Your task to perform on an android device: uninstall "Airtel Thanks" Image 0: 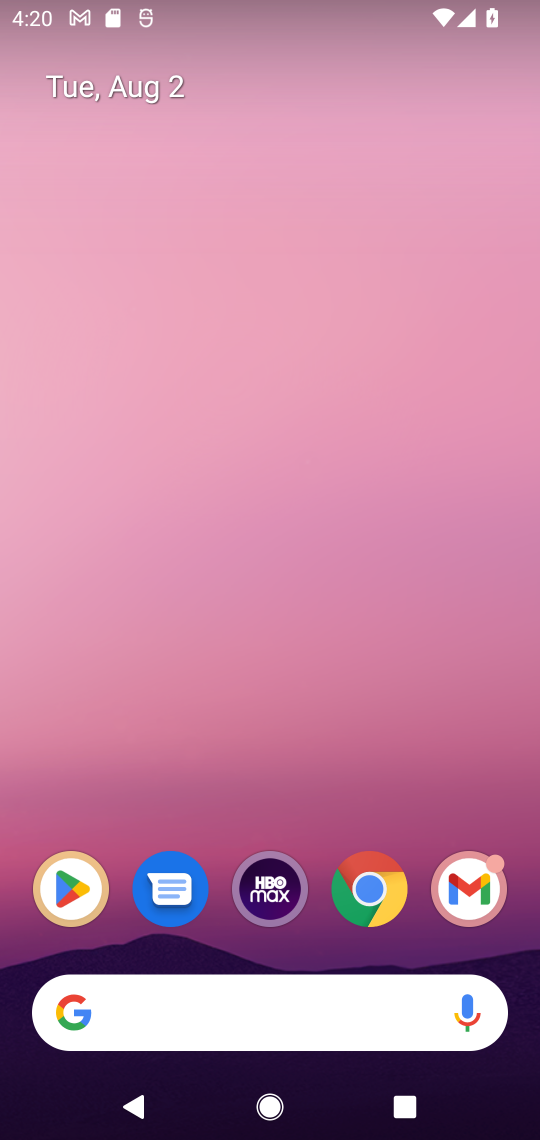
Step 0: drag from (431, 759) to (434, 97)
Your task to perform on an android device: uninstall "Airtel Thanks" Image 1: 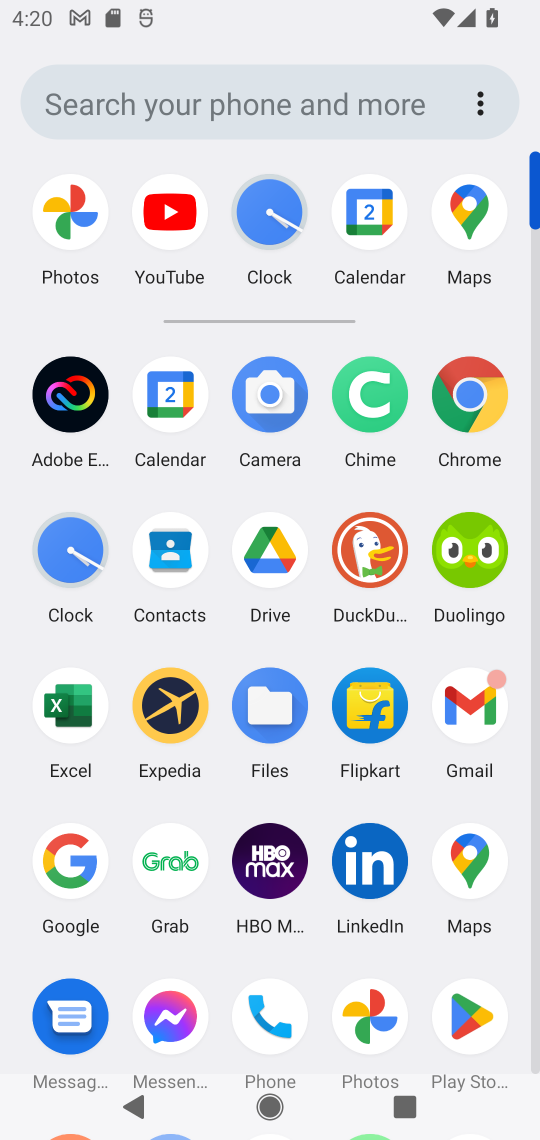
Step 1: click (474, 1028)
Your task to perform on an android device: uninstall "Airtel Thanks" Image 2: 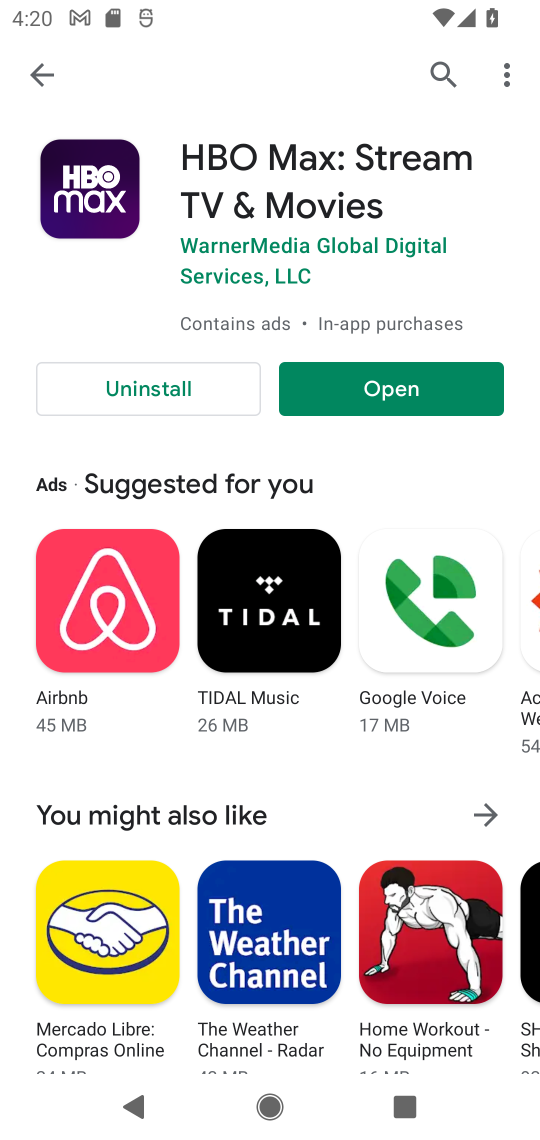
Step 2: click (438, 70)
Your task to perform on an android device: uninstall "Airtel Thanks" Image 3: 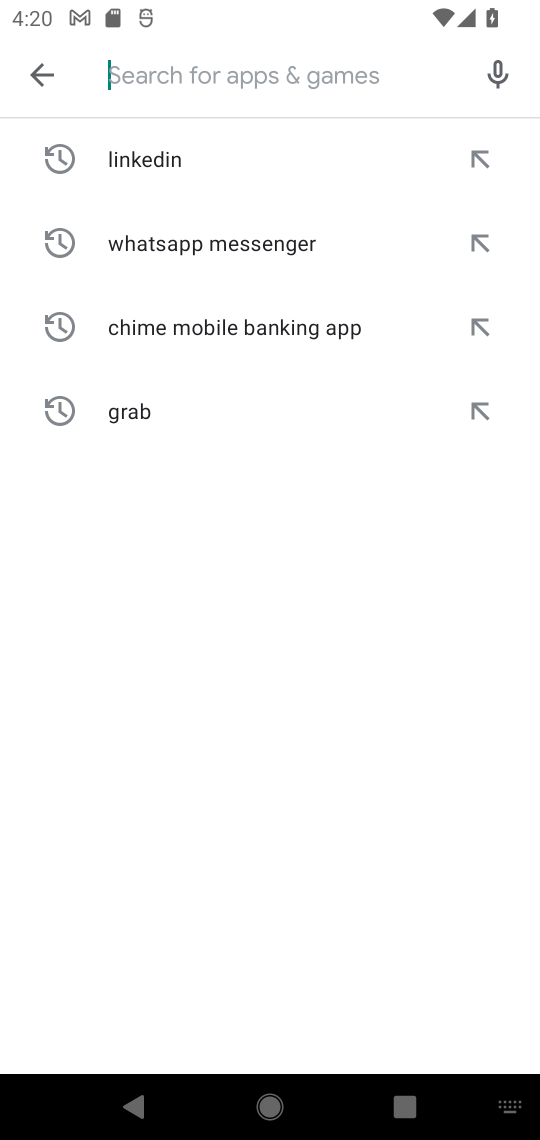
Step 3: click (351, 88)
Your task to perform on an android device: uninstall "Airtel Thanks" Image 4: 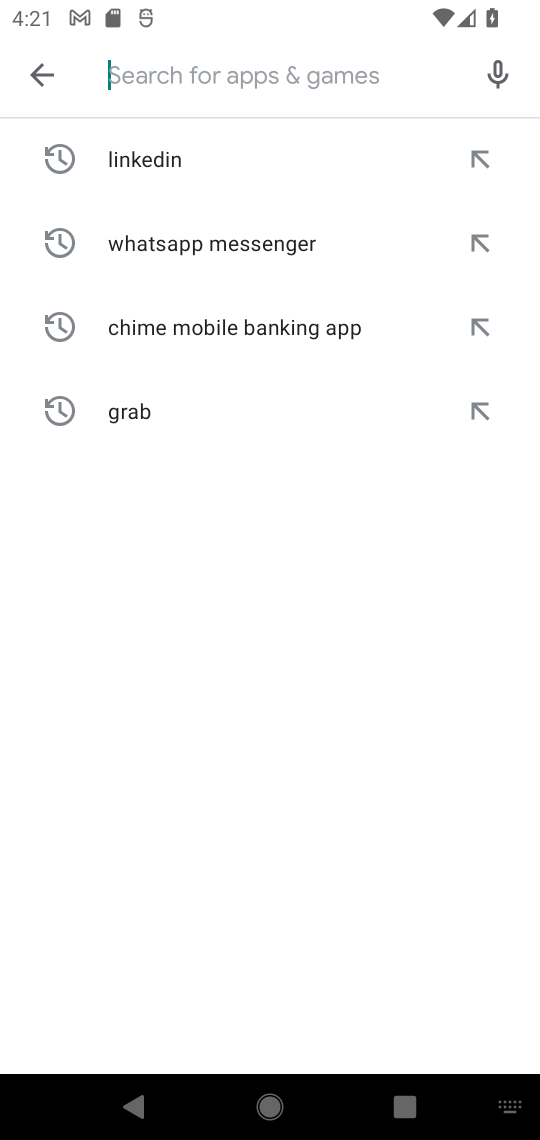
Step 4: type "airtel thanks"
Your task to perform on an android device: uninstall "Airtel Thanks" Image 5: 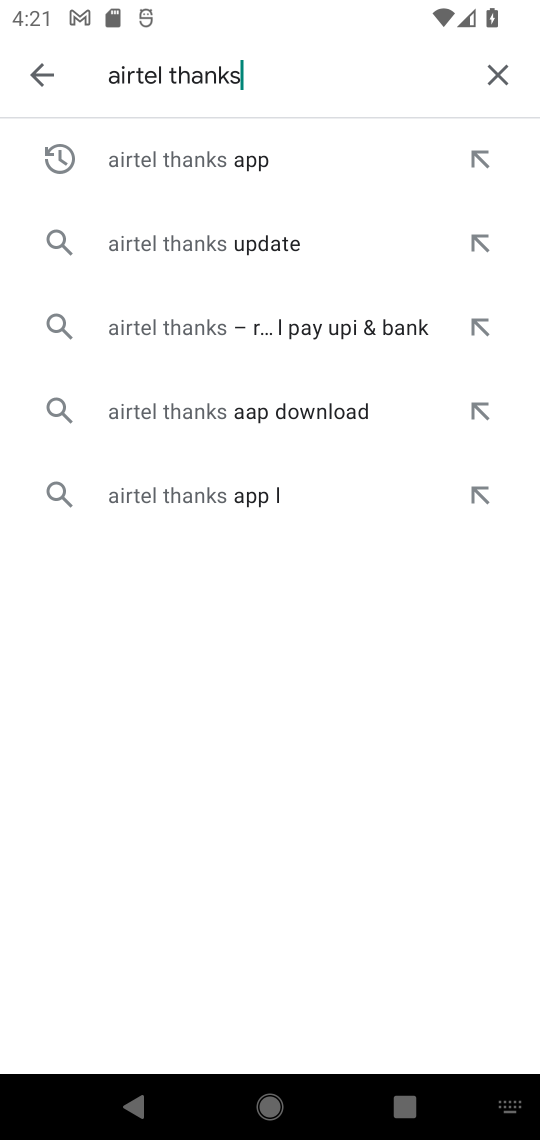
Step 5: click (299, 158)
Your task to perform on an android device: uninstall "Airtel Thanks" Image 6: 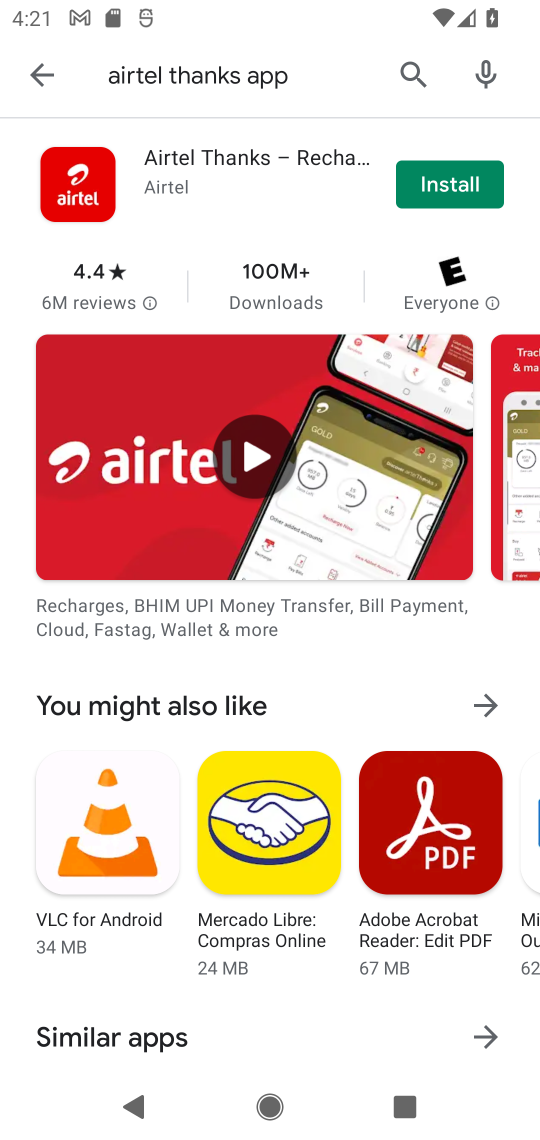
Step 6: task complete